Your task to perform on an android device: turn on javascript in the chrome app Image 0: 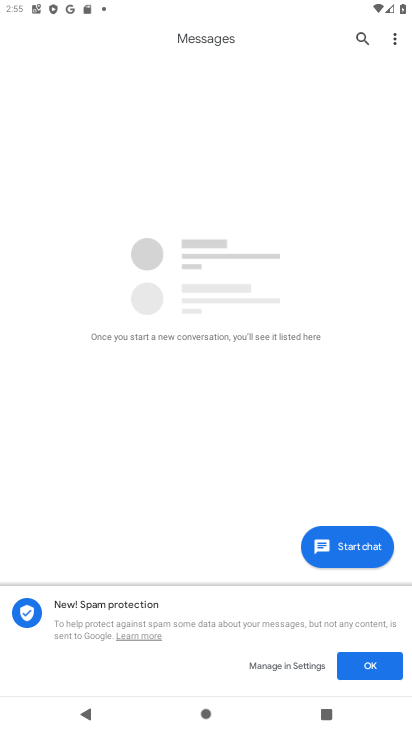
Step 0: press home button
Your task to perform on an android device: turn on javascript in the chrome app Image 1: 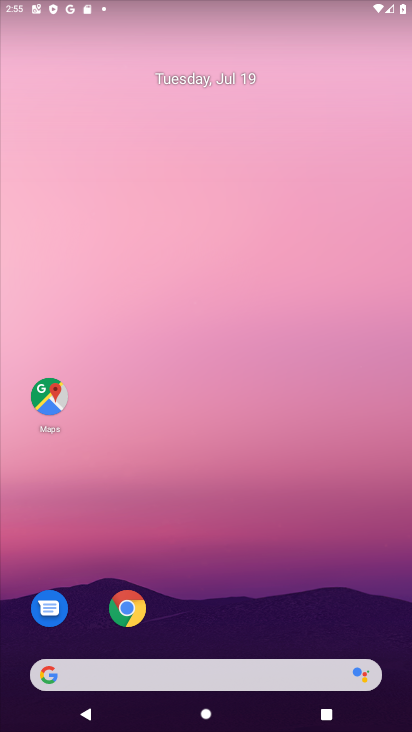
Step 1: drag from (318, 620) to (230, 109)
Your task to perform on an android device: turn on javascript in the chrome app Image 2: 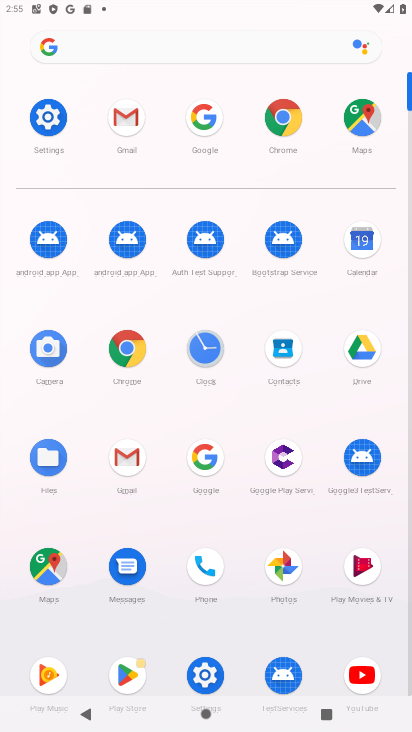
Step 2: click (277, 119)
Your task to perform on an android device: turn on javascript in the chrome app Image 3: 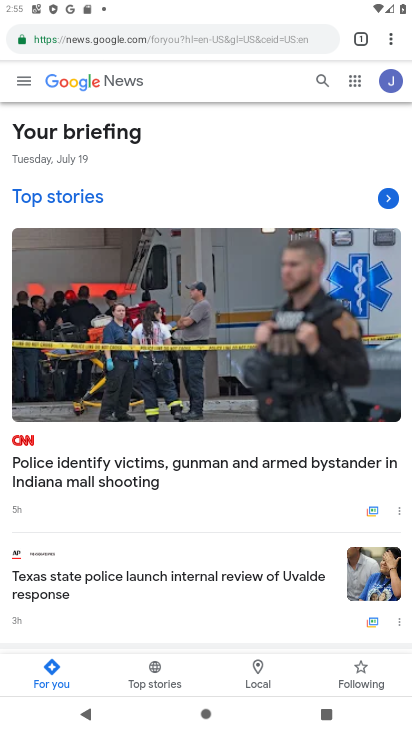
Step 3: drag from (390, 37) to (260, 478)
Your task to perform on an android device: turn on javascript in the chrome app Image 4: 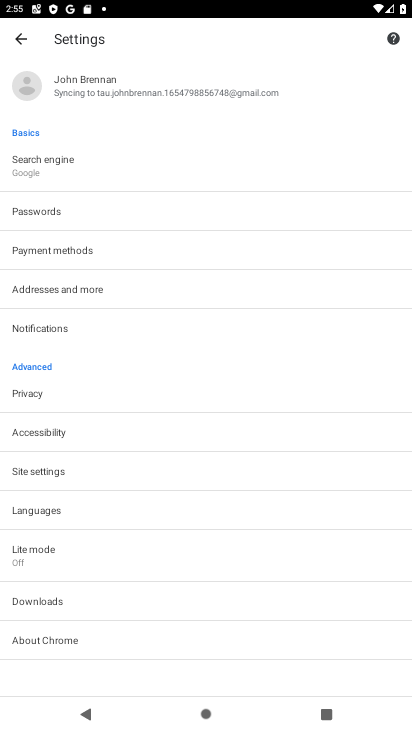
Step 4: click (5, 472)
Your task to perform on an android device: turn on javascript in the chrome app Image 5: 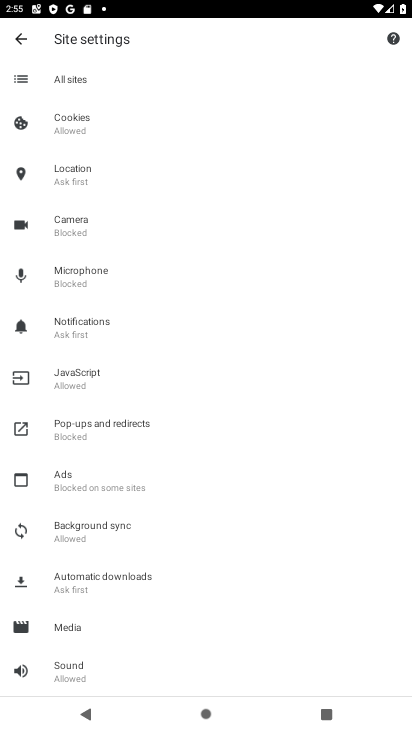
Step 5: click (65, 370)
Your task to perform on an android device: turn on javascript in the chrome app Image 6: 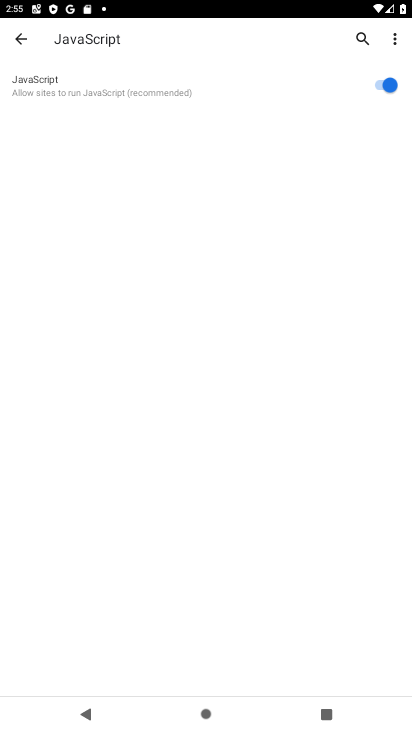
Step 6: task complete